Your task to perform on an android device: stop showing notifications on the lock screen Image 0: 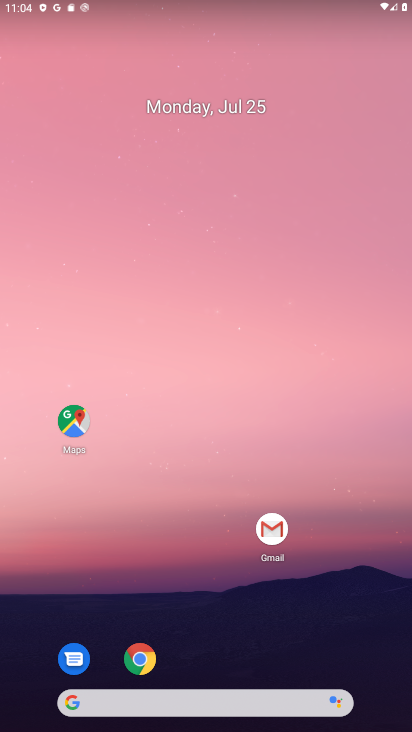
Step 0: drag from (199, 707) to (257, 167)
Your task to perform on an android device: stop showing notifications on the lock screen Image 1: 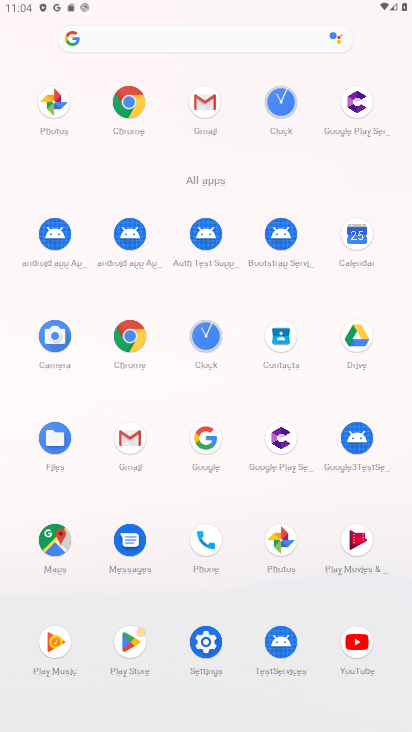
Step 1: drag from (204, 647) to (274, 656)
Your task to perform on an android device: stop showing notifications on the lock screen Image 2: 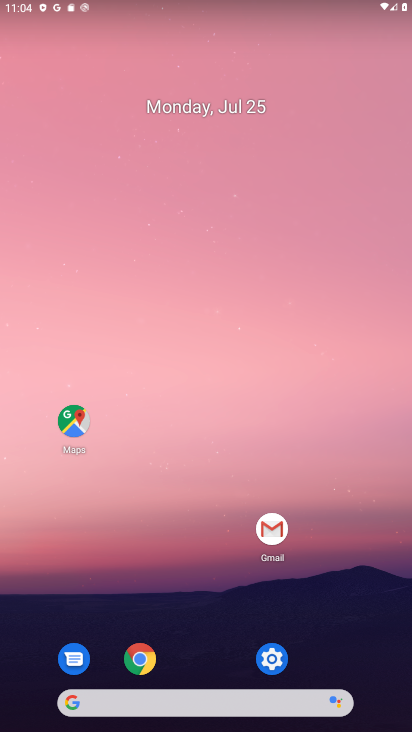
Step 2: click (269, 659)
Your task to perform on an android device: stop showing notifications on the lock screen Image 3: 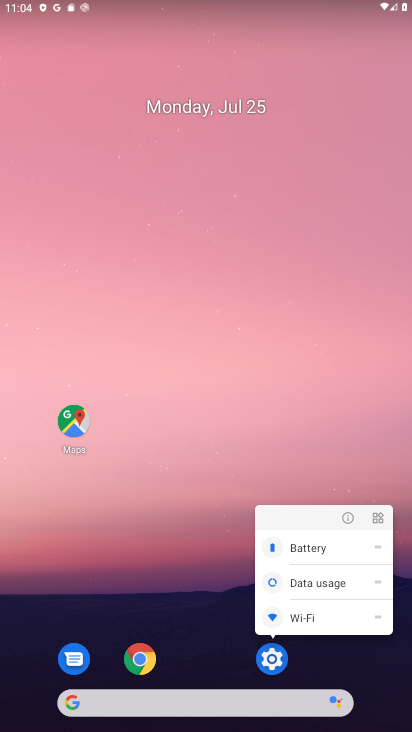
Step 3: click (272, 672)
Your task to perform on an android device: stop showing notifications on the lock screen Image 4: 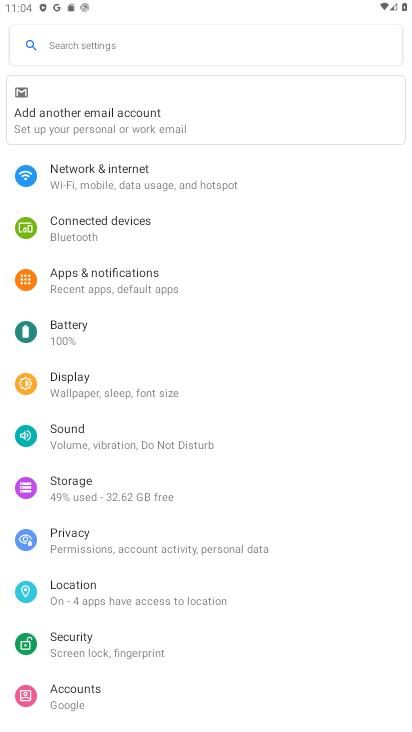
Step 4: click (116, 55)
Your task to perform on an android device: stop showing notifications on the lock screen Image 5: 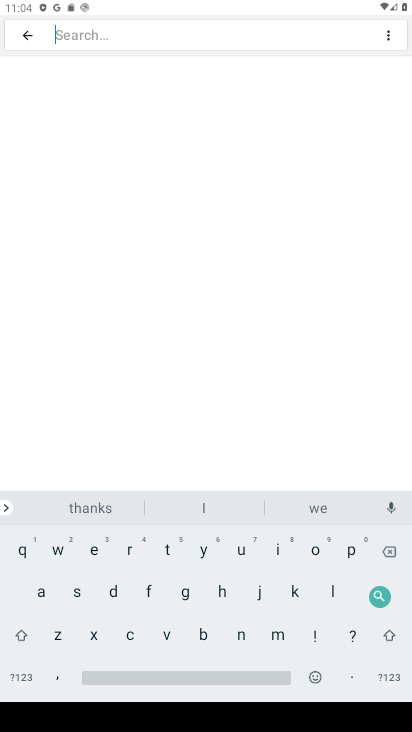
Step 5: click (237, 640)
Your task to perform on an android device: stop showing notifications on the lock screen Image 6: 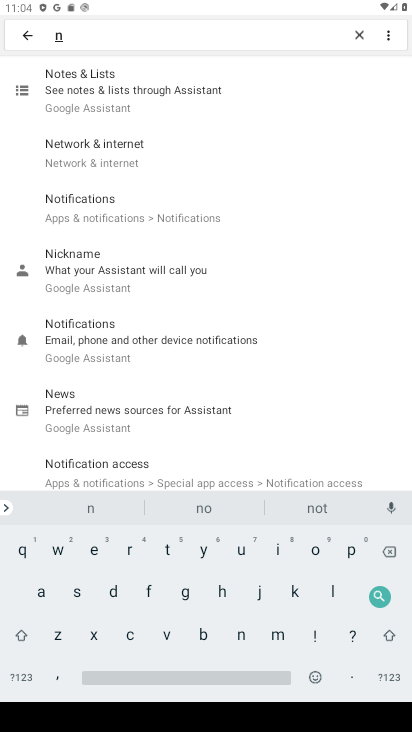
Step 6: click (313, 552)
Your task to perform on an android device: stop showing notifications on the lock screen Image 7: 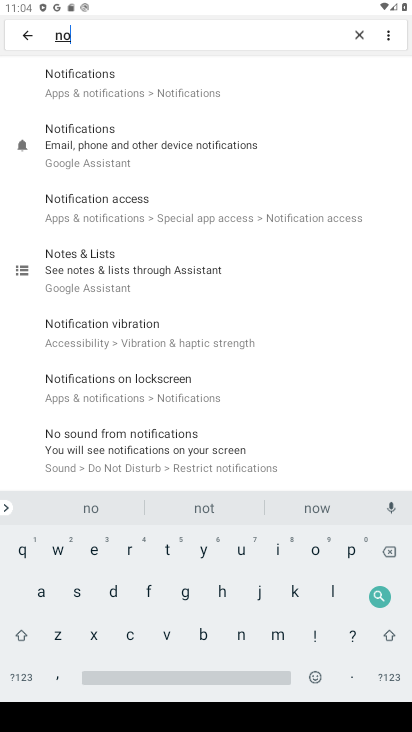
Step 7: click (104, 86)
Your task to perform on an android device: stop showing notifications on the lock screen Image 8: 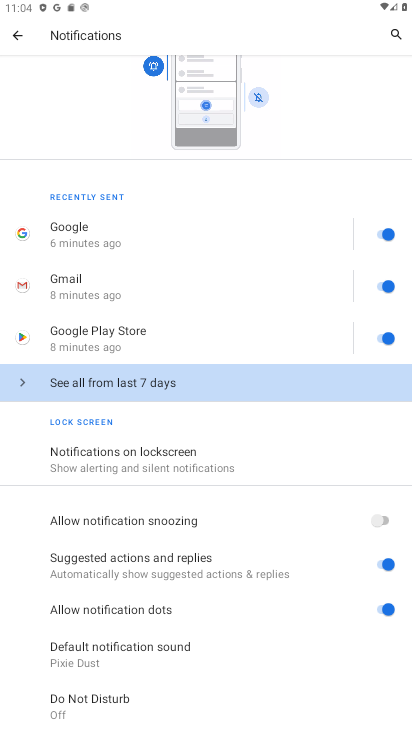
Step 8: click (83, 460)
Your task to perform on an android device: stop showing notifications on the lock screen Image 9: 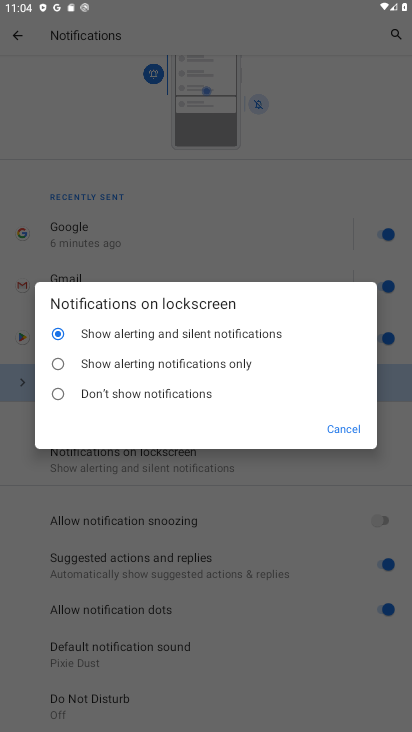
Step 9: click (124, 400)
Your task to perform on an android device: stop showing notifications on the lock screen Image 10: 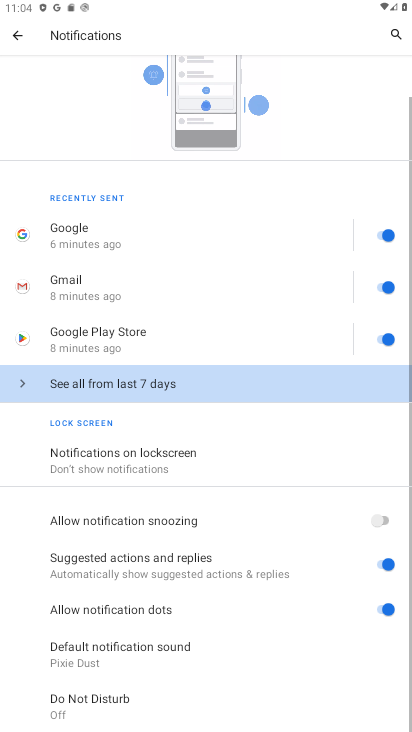
Step 10: click (92, 470)
Your task to perform on an android device: stop showing notifications on the lock screen Image 11: 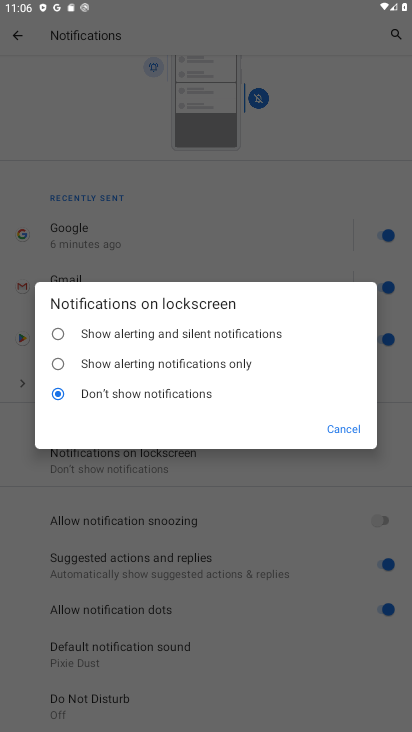
Step 11: task complete